Your task to perform on an android device: What is the news today? Image 0: 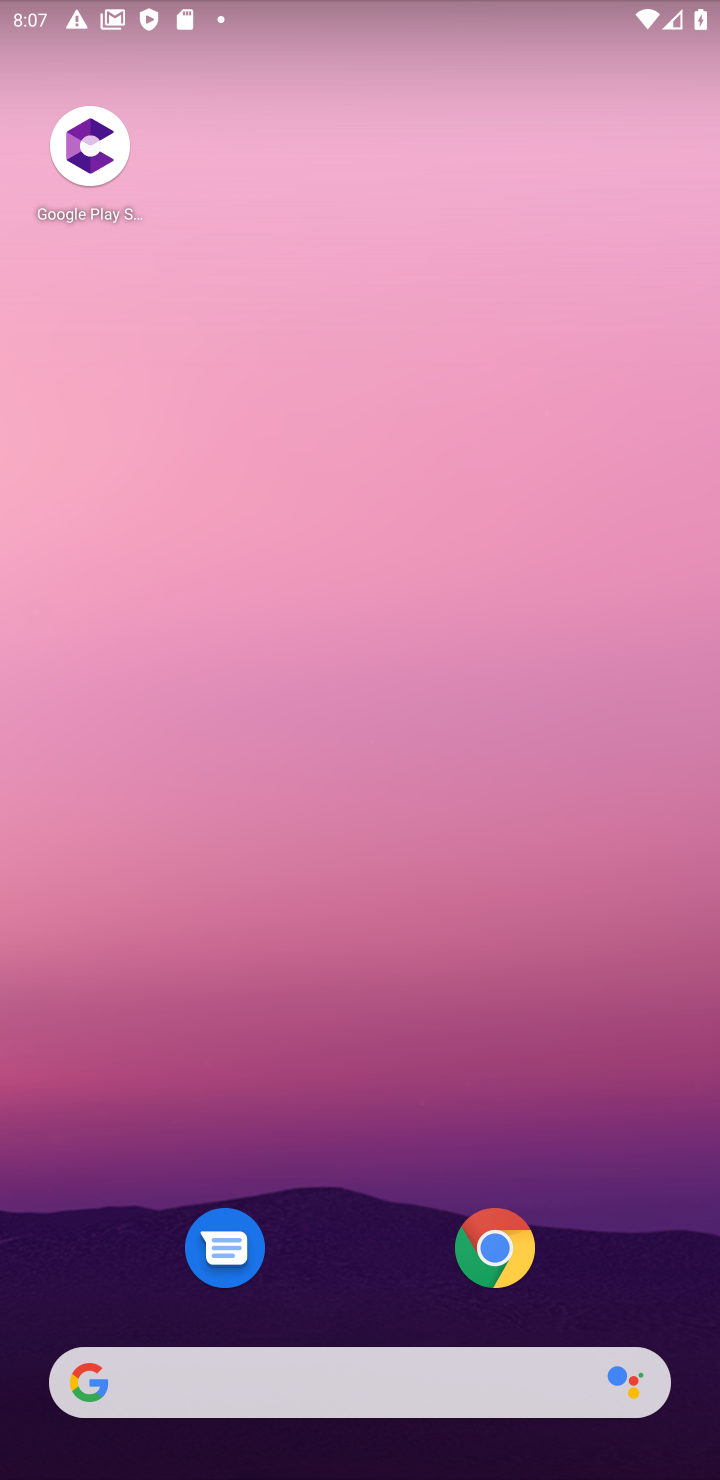
Step 0: drag from (377, 1257) to (535, 102)
Your task to perform on an android device: What is the news today? Image 1: 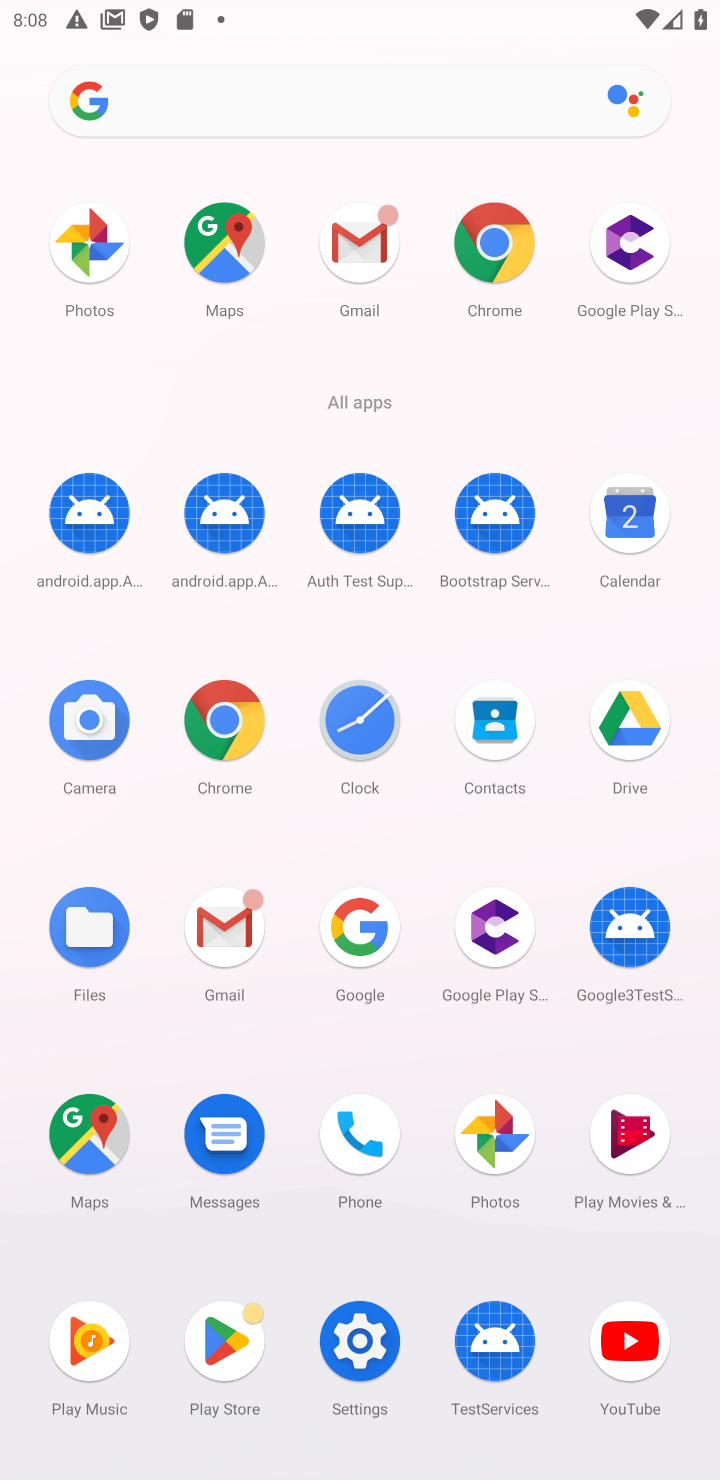
Step 1: click (486, 265)
Your task to perform on an android device: What is the news today? Image 2: 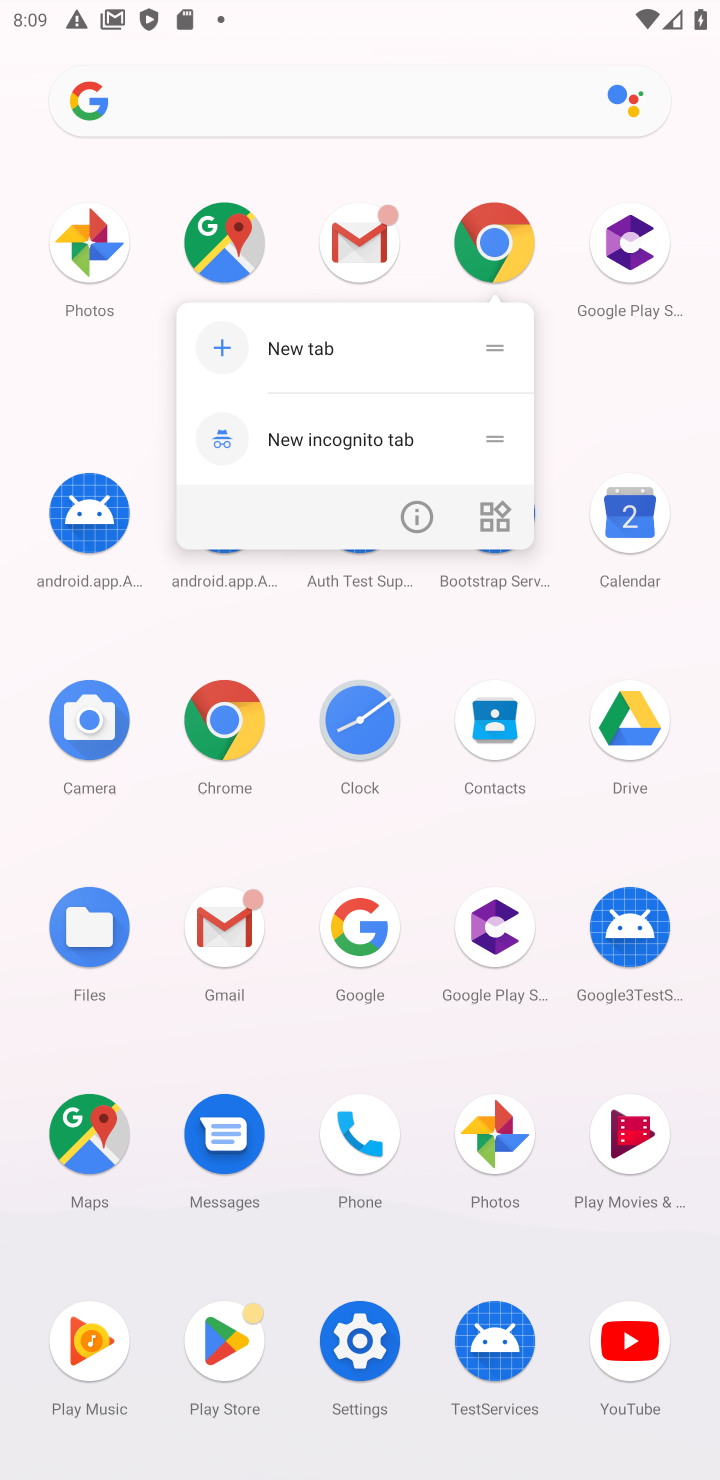
Step 2: click (399, 1048)
Your task to perform on an android device: What is the news today? Image 3: 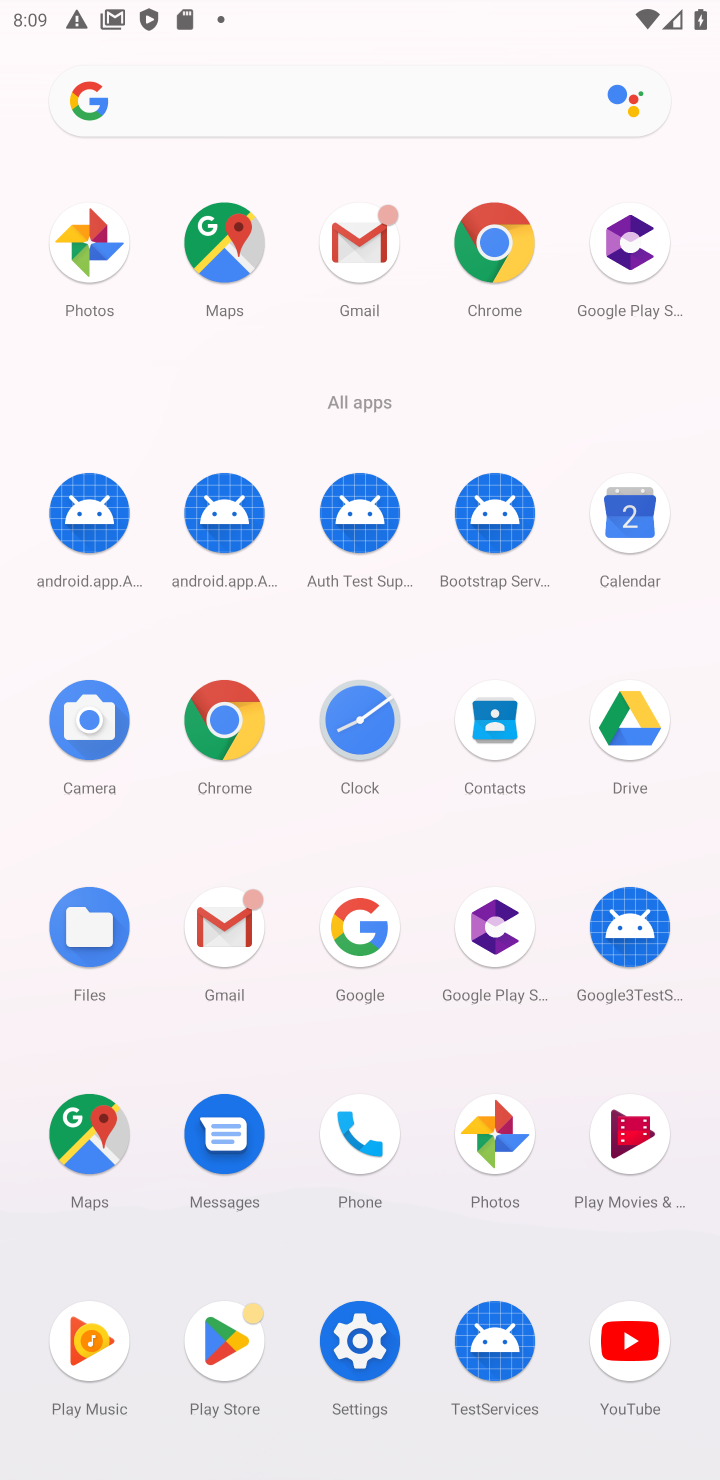
Step 3: type "What is the news today?"
Your task to perform on an android device: What is the news today? Image 4: 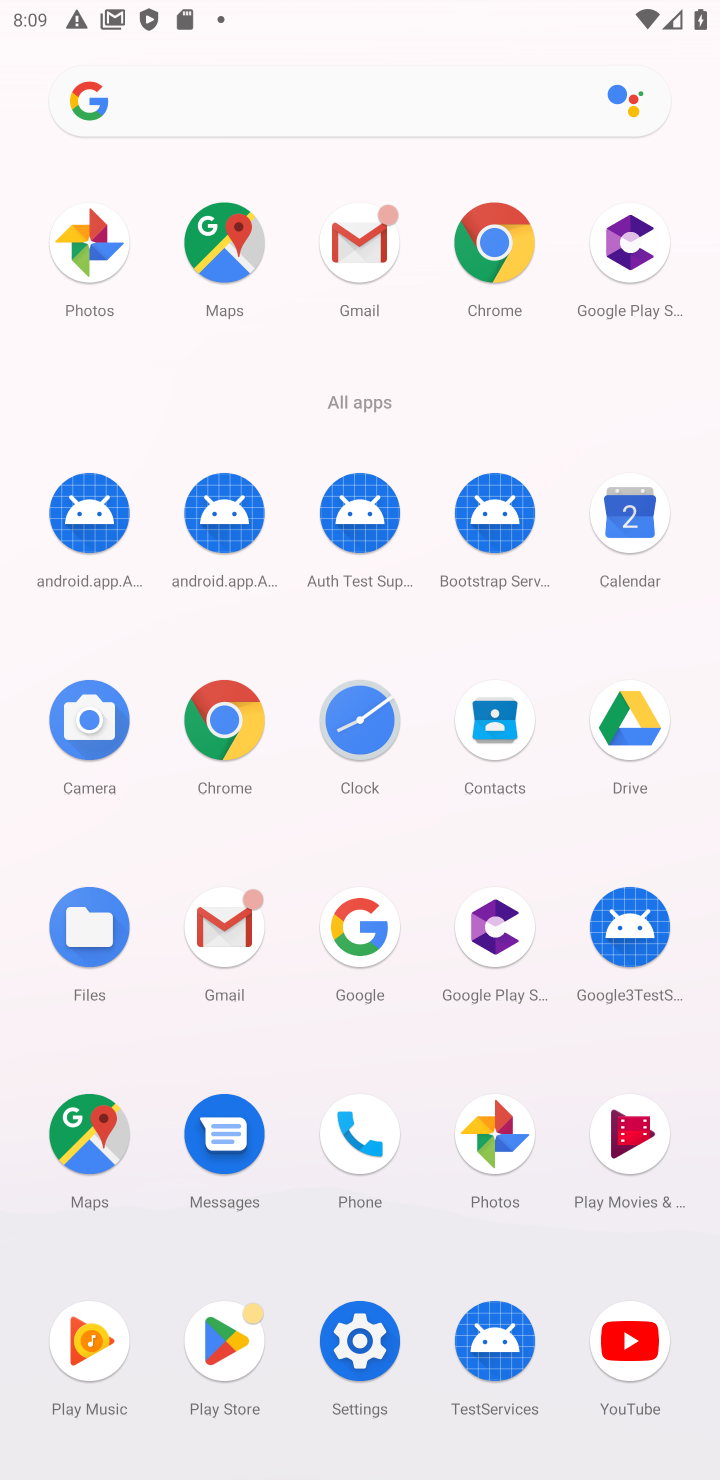
Step 4: click (502, 243)
Your task to perform on an android device: What is the news today? Image 5: 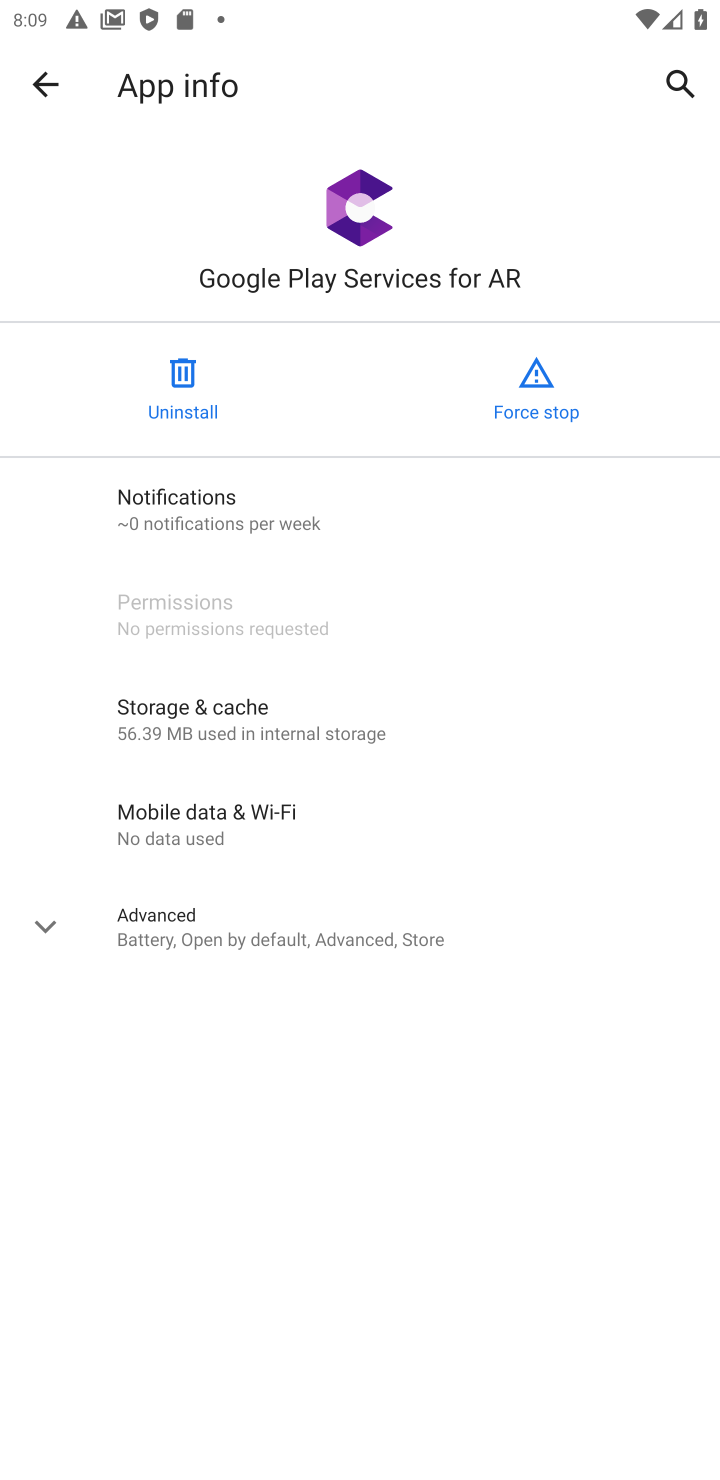
Step 5: press home button
Your task to perform on an android device: What is the news today? Image 6: 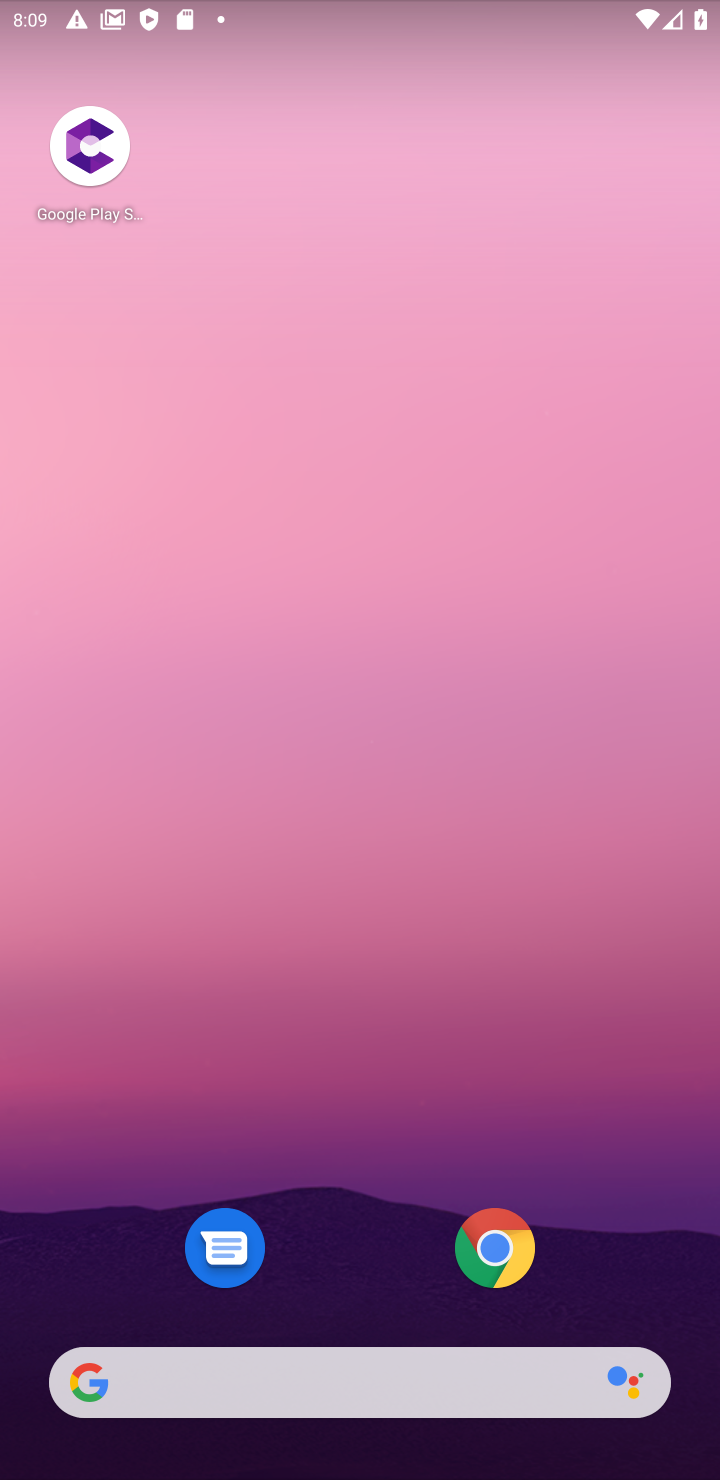
Step 6: click (486, 1247)
Your task to perform on an android device: What is the news today? Image 7: 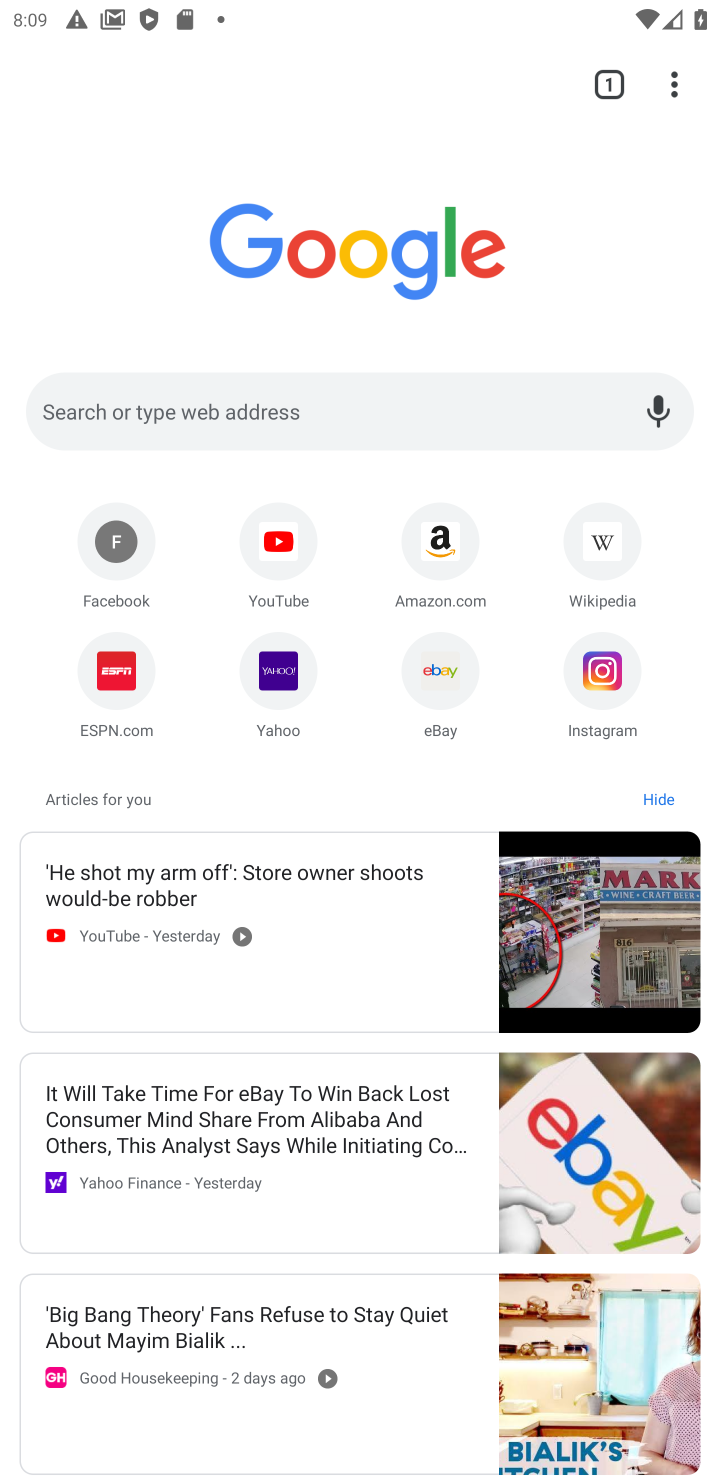
Step 7: click (387, 413)
Your task to perform on an android device: What is the news today? Image 8: 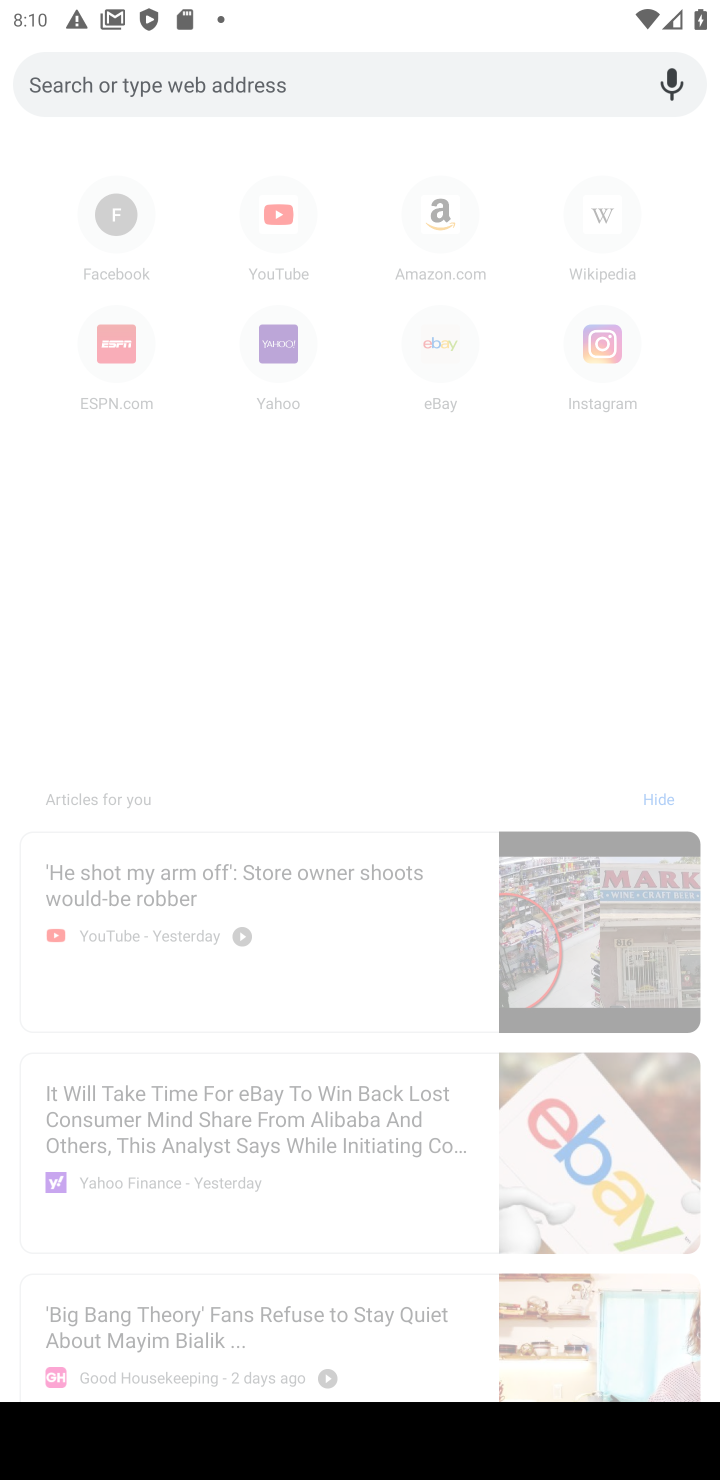
Step 8: type "What is the news today"
Your task to perform on an android device: What is the news today? Image 9: 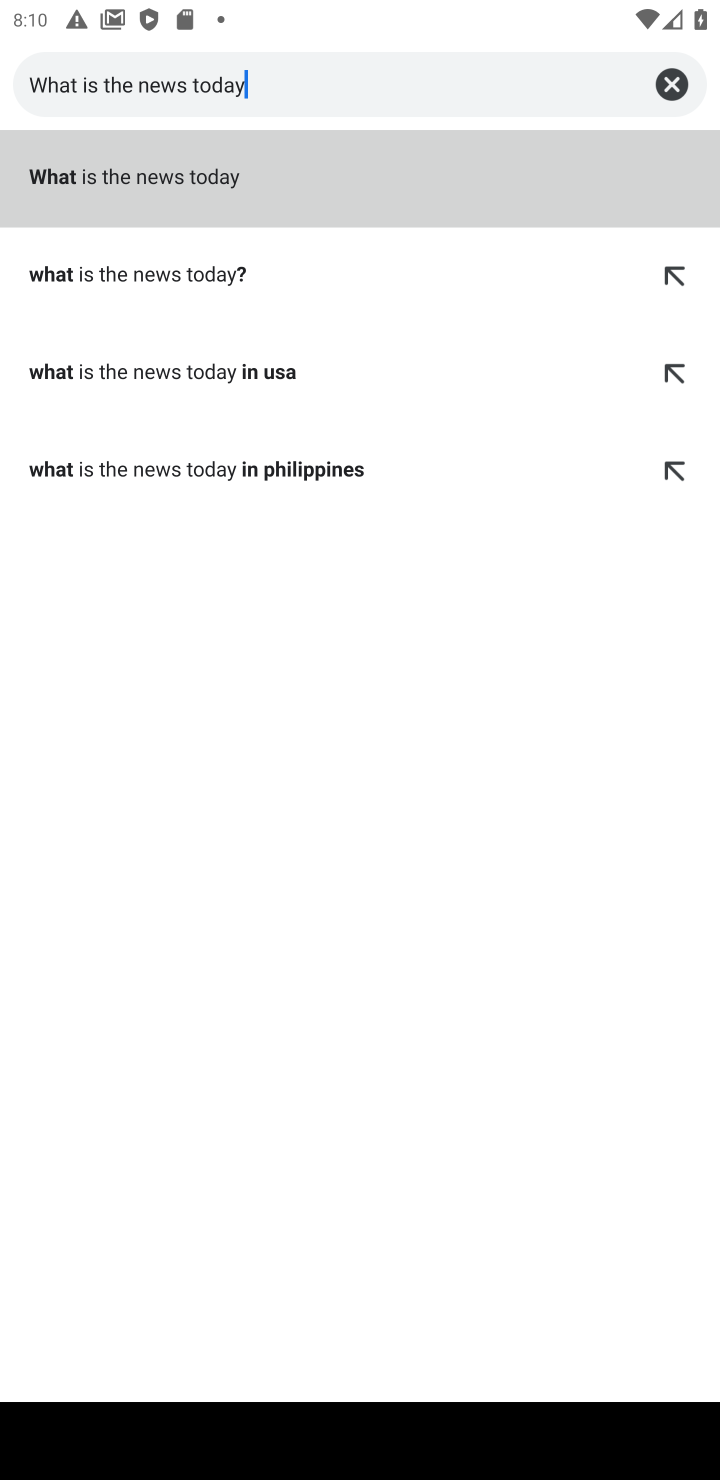
Step 9: click (181, 174)
Your task to perform on an android device: What is the news today? Image 10: 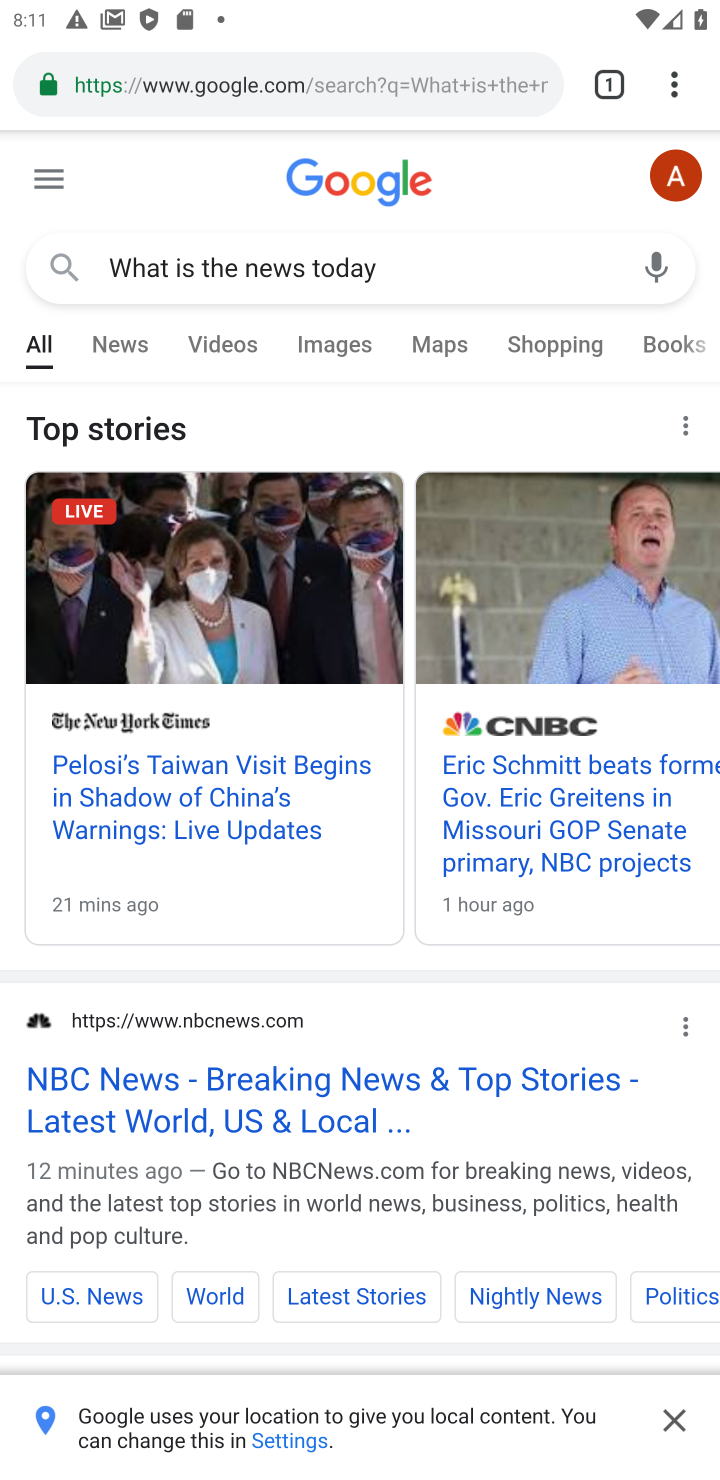
Step 10: click (124, 340)
Your task to perform on an android device: What is the news today? Image 11: 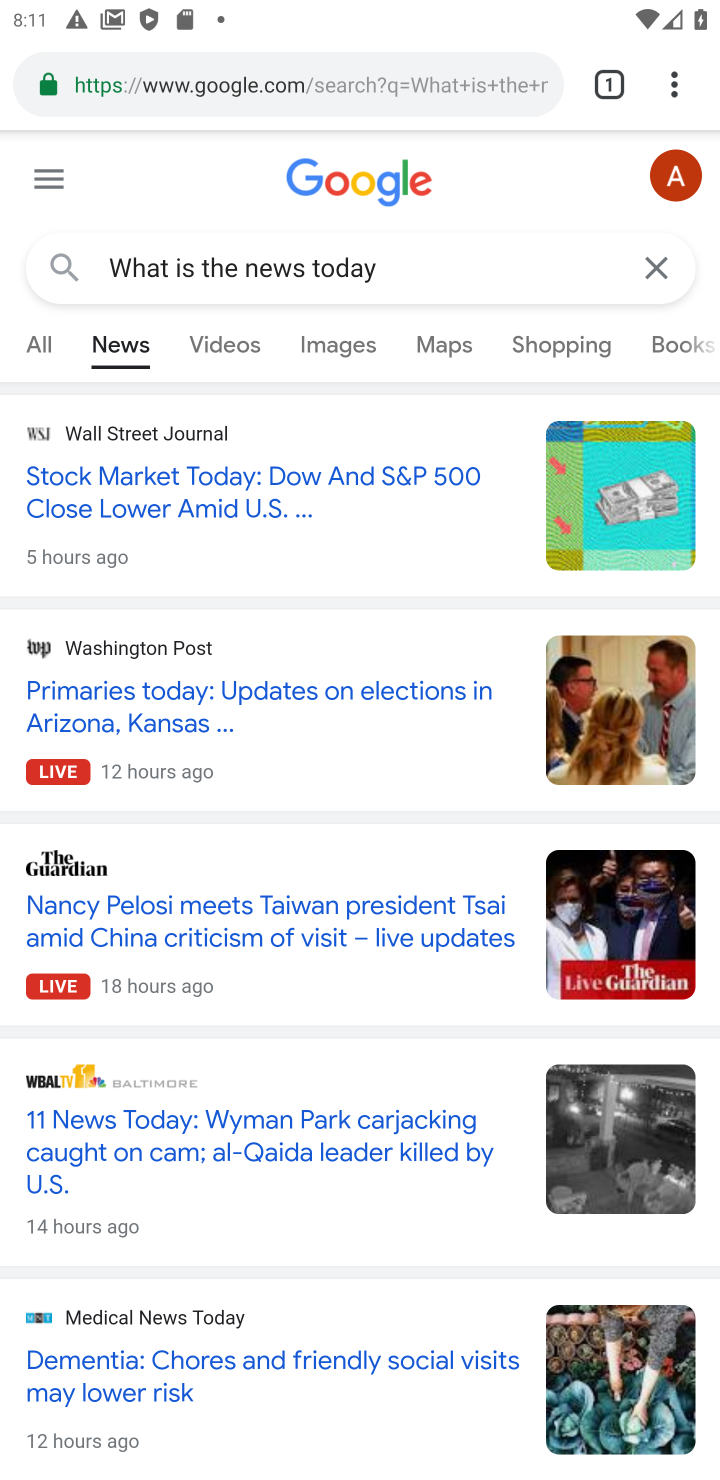
Step 11: task complete